Your task to perform on an android device: manage bookmarks in the chrome app Image 0: 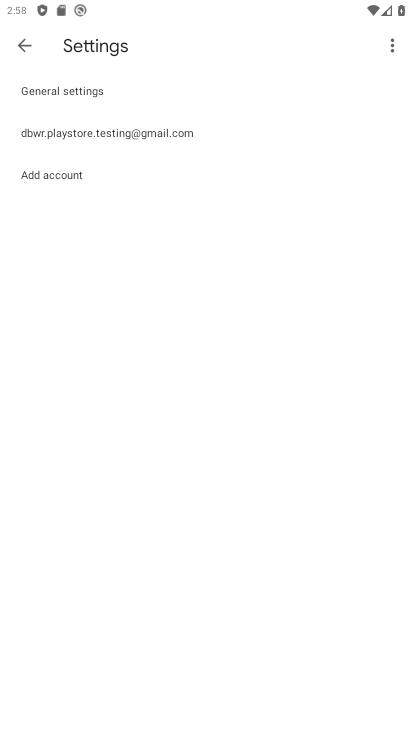
Step 0: press home button
Your task to perform on an android device: manage bookmarks in the chrome app Image 1: 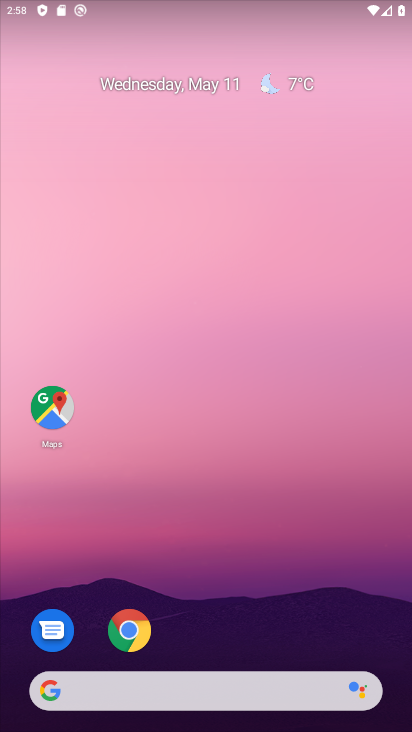
Step 1: click (113, 648)
Your task to perform on an android device: manage bookmarks in the chrome app Image 2: 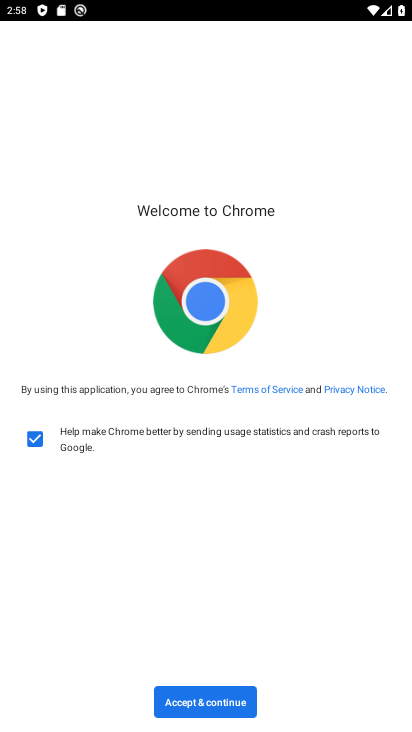
Step 2: click (191, 710)
Your task to perform on an android device: manage bookmarks in the chrome app Image 3: 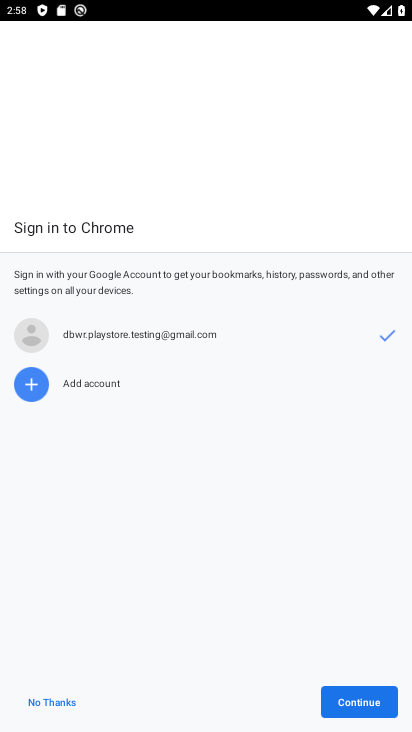
Step 3: click (363, 701)
Your task to perform on an android device: manage bookmarks in the chrome app Image 4: 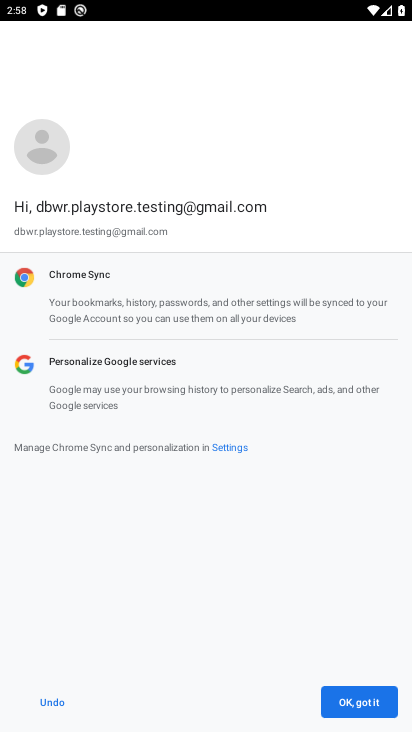
Step 4: click (362, 702)
Your task to perform on an android device: manage bookmarks in the chrome app Image 5: 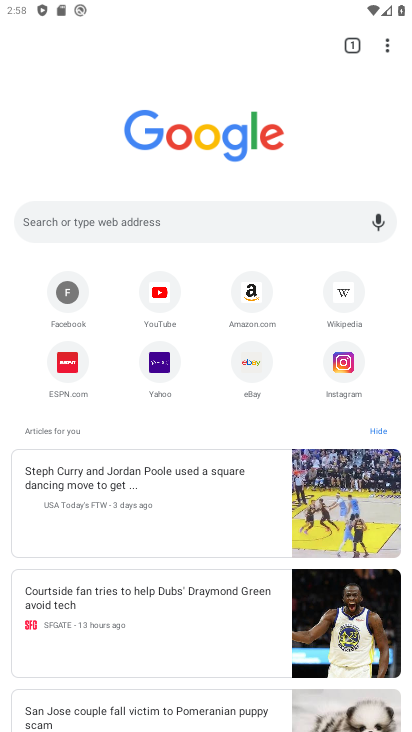
Step 5: task complete